Your task to perform on an android device: Toggle the flashlight Image 0: 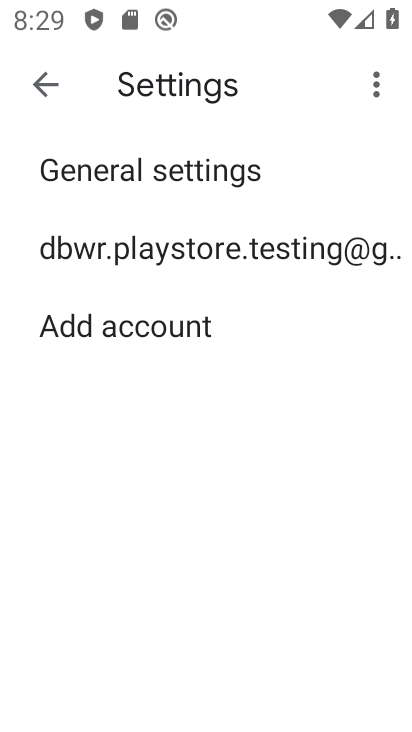
Step 0: press home button
Your task to perform on an android device: Toggle the flashlight Image 1: 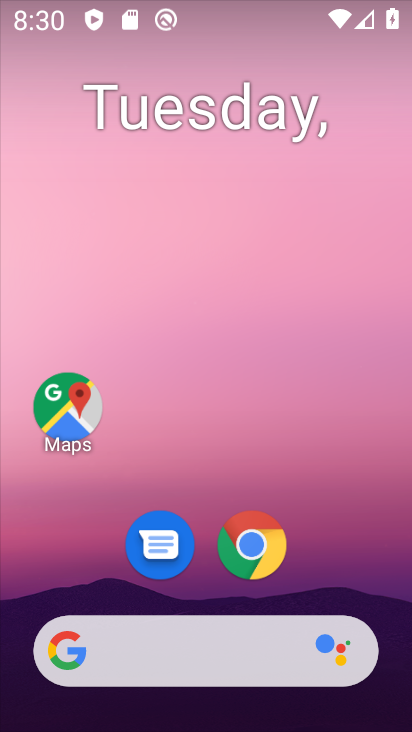
Step 1: drag from (207, 575) to (208, 63)
Your task to perform on an android device: Toggle the flashlight Image 2: 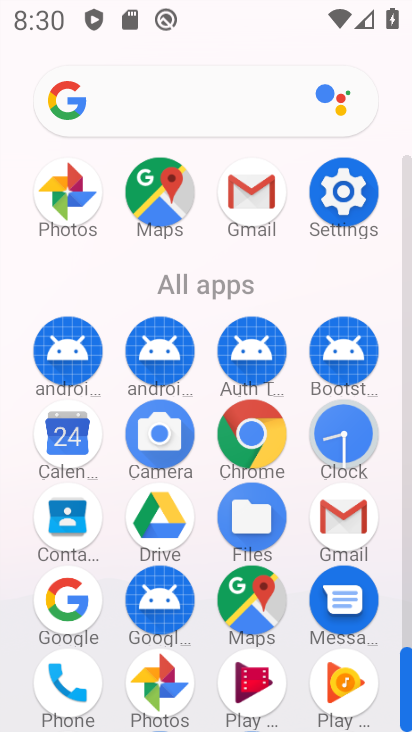
Step 2: click (338, 190)
Your task to perform on an android device: Toggle the flashlight Image 3: 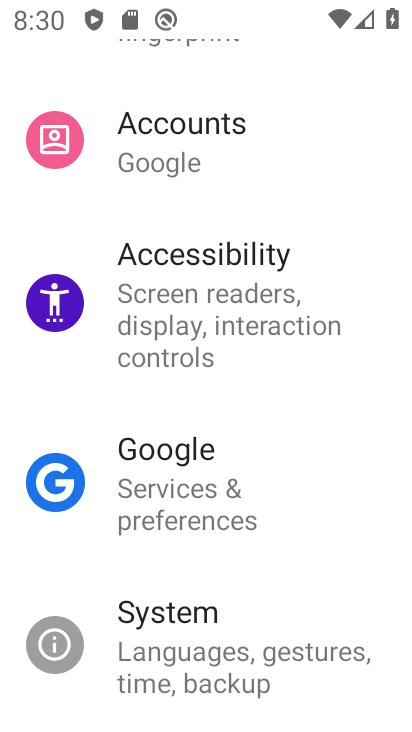
Step 3: task complete